Your task to perform on an android device: Toggle the flashlight Image 0: 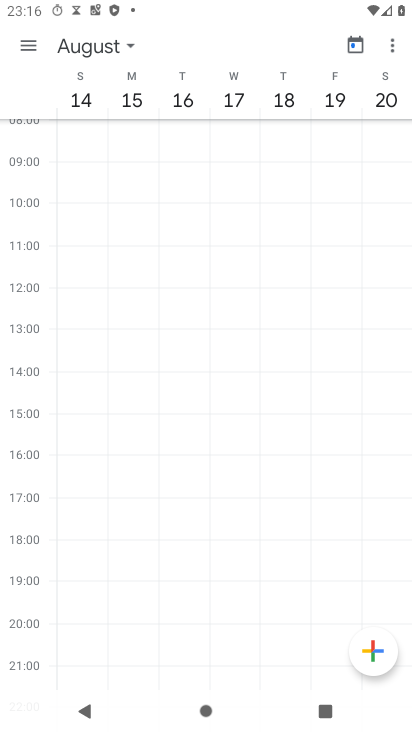
Step 0: press home button
Your task to perform on an android device: Toggle the flashlight Image 1: 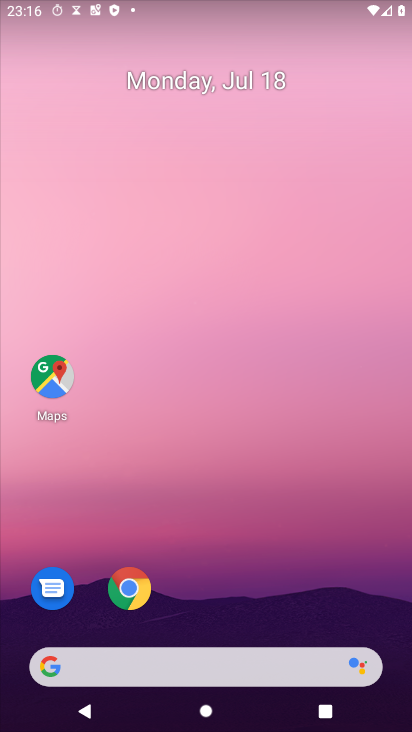
Step 1: task complete